Your task to perform on an android device: Check the news Image 0: 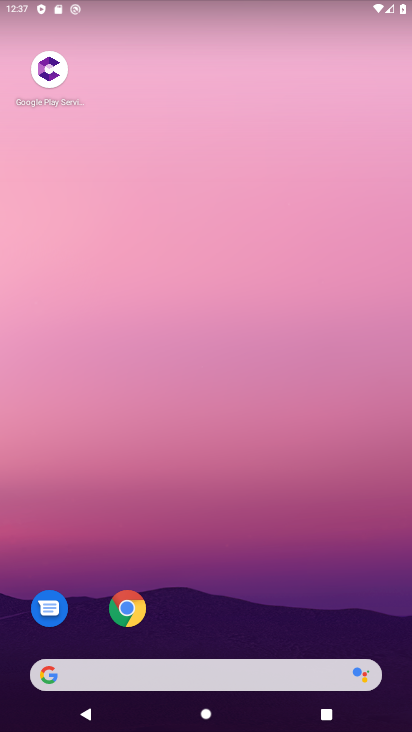
Step 0: click (226, 678)
Your task to perform on an android device: Check the news Image 1: 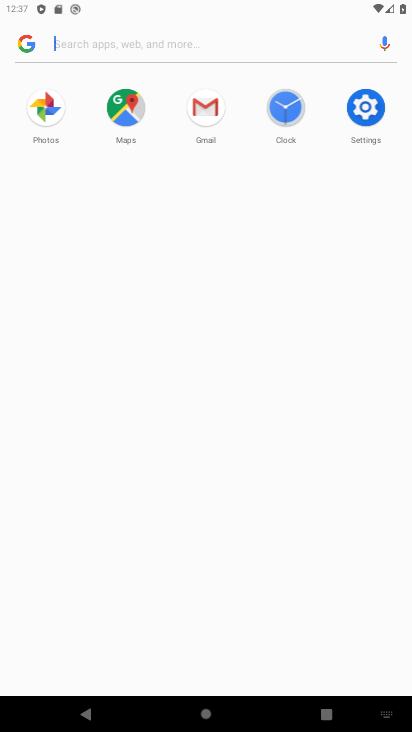
Step 1: type "Check the news"
Your task to perform on an android device: Check the news Image 2: 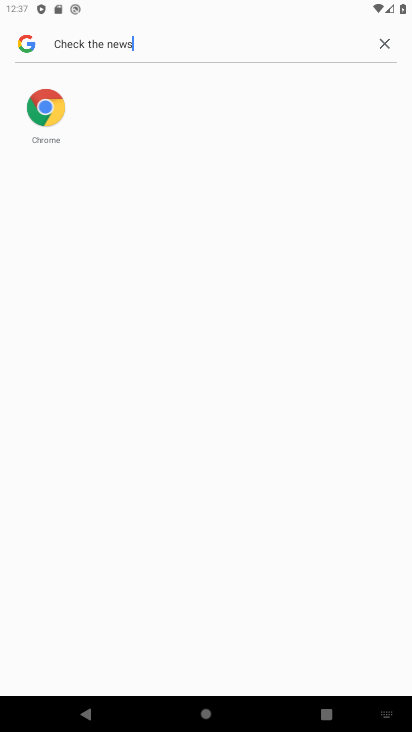
Step 2: press enter
Your task to perform on an android device: Check the news Image 3: 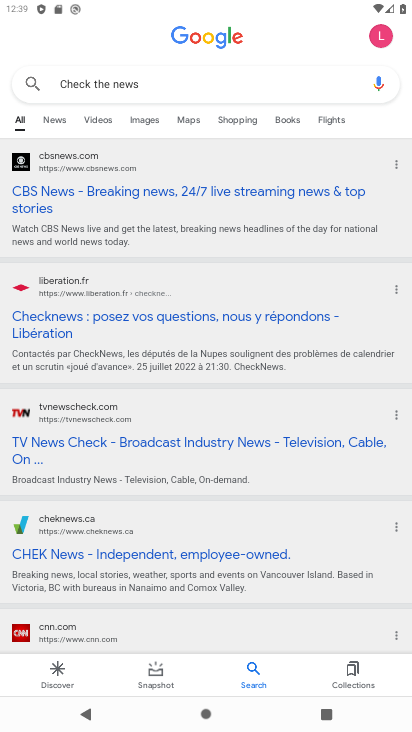
Step 3: task complete